Your task to perform on an android device: turn smart compose on in the gmail app Image 0: 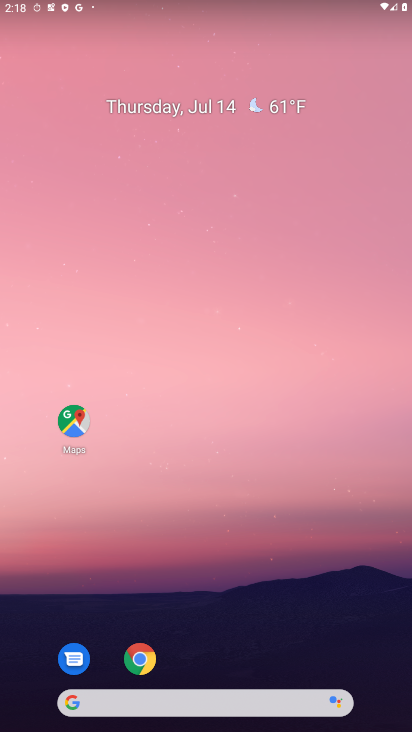
Step 0: drag from (237, 662) to (208, 112)
Your task to perform on an android device: turn smart compose on in the gmail app Image 1: 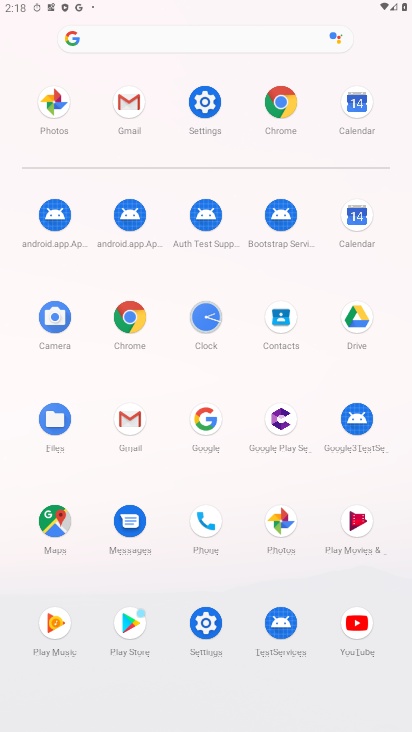
Step 1: click (131, 431)
Your task to perform on an android device: turn smart compose on in the gmail app Image 2: 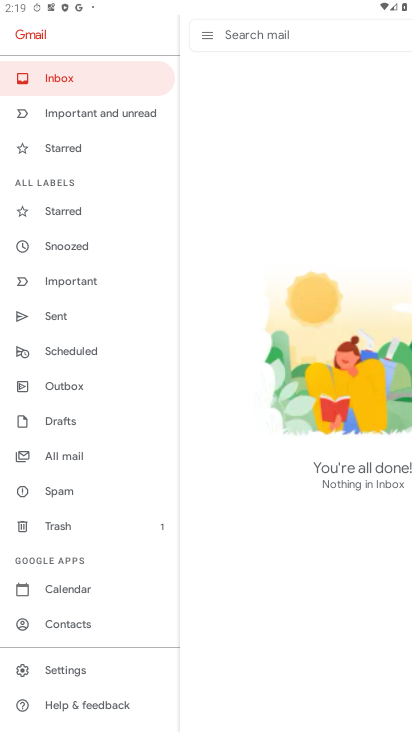
Step 2: click (56, 665)
Your task to perform on an android device: turn smart compose on in the gmail app Image 3: 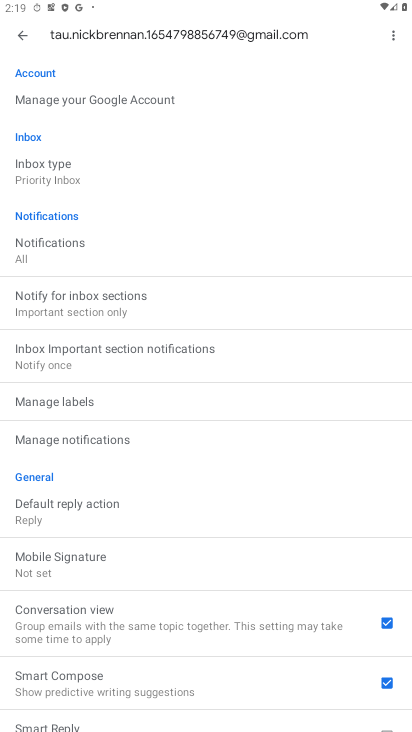
Step 3: task complete